Your task to perform on an android device: toggle show notifications on the lock screen Image 0: 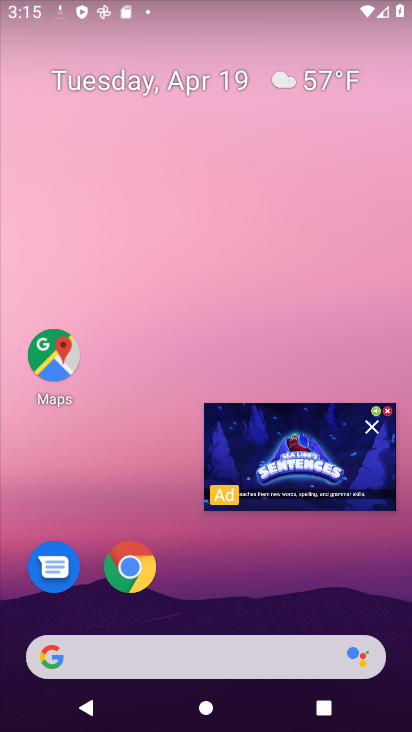
Step 0: press home button
Your task to perform on an android device: toggle show notifications on the lock screen Image 1: 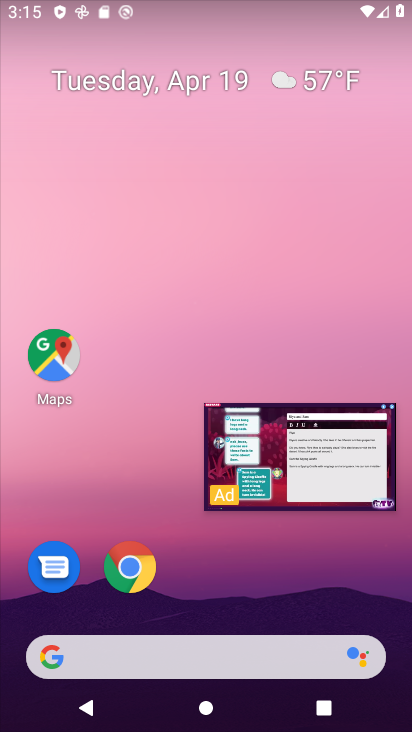
Step 1: click (380, 418)
Your task to perform on an android device: toggle show notifications on the lock screen Image 2: 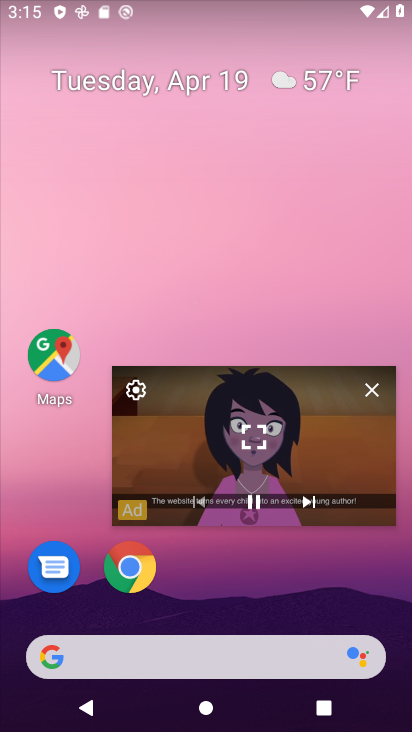
Step 2: click (372, 388)
Your task to perform on an android device: toggle show notifications on the lock screen Image 3: 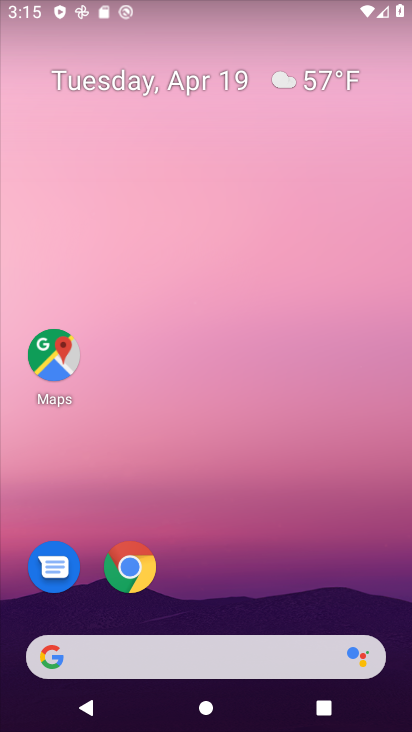
Step 3: drag from (261, 582) to (286, 63)
Your task to perform on an android device: toggle show notifications on the lock screen Image 4: 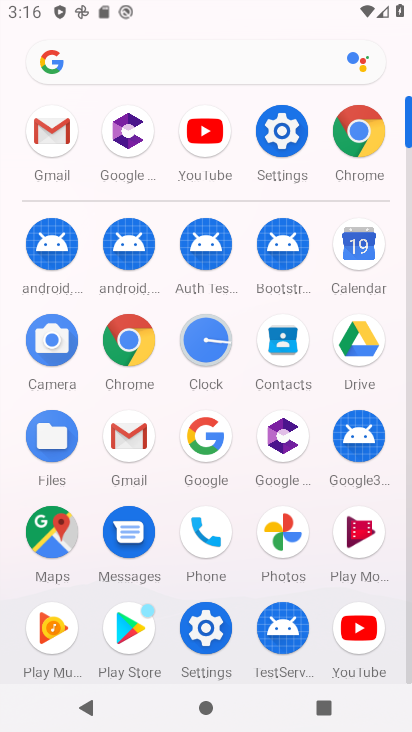
Step 4: click (289, 136)
Your task to perform on an android device: toggle show notifications on the lock screen Image 5: 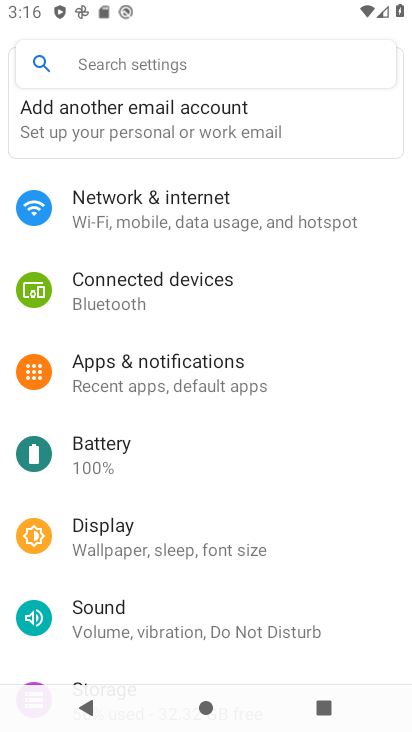
Step 5: drag from (362, 542) to (371, 398)
Your task to perform on an android device: toggle show notifications on the lock screen Image 6: 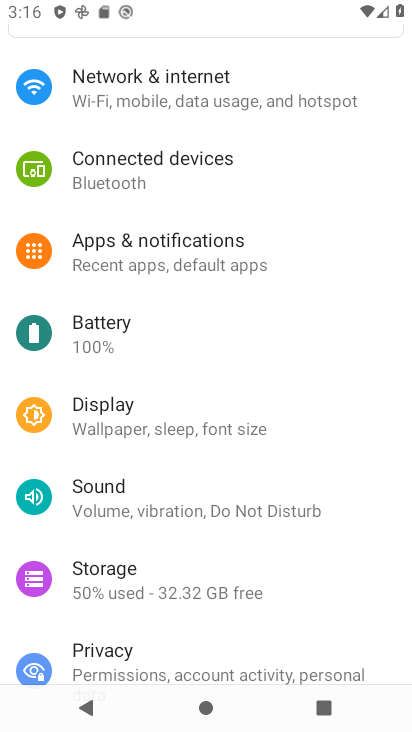
Step 6: drag from (341, 590) to (363, 365)
Your task to perform on an android device: toggle show notifications on the lock screen Image 7: 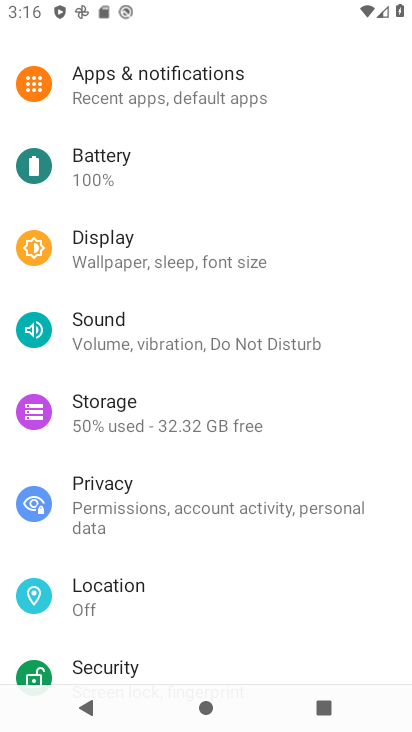
Step 7: drag from (369, 635) to (387, 378)
Your task to perform on an android device: toggle show notifications on the lock screen Image 8: 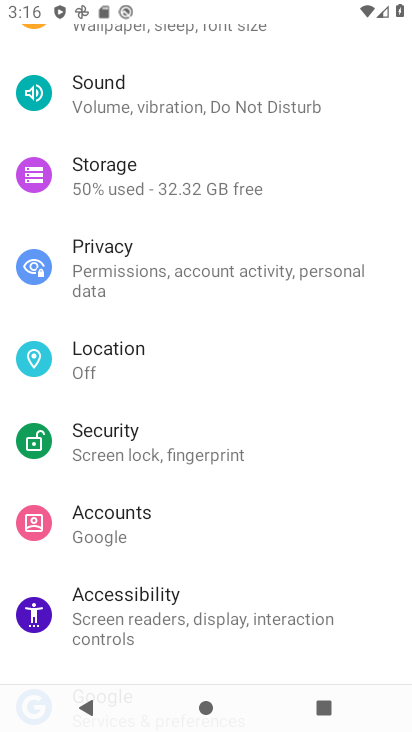
Step 8: drag from (355, 611) to (374, 324)
Your task to perform on an android device: toggle show notifications on the lock screen Image 9: 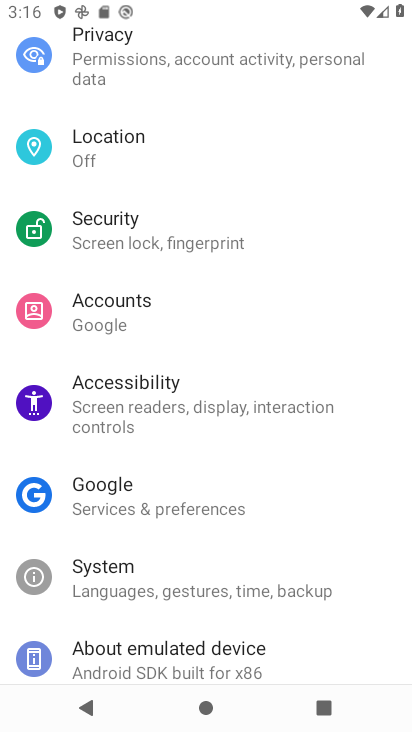
Step 9: drag from (335, 623) to (355, 333)
Your task to perform on an android device: toggle show notifications on the lock screen Image 10: 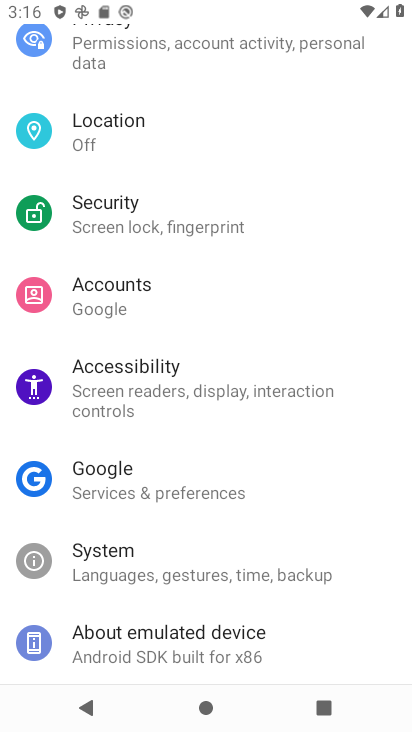
Step 10: drag from (361, 280) to (337, 504)
Your task to perform on an android device: toggle show notifications on the lock screen Image 11: 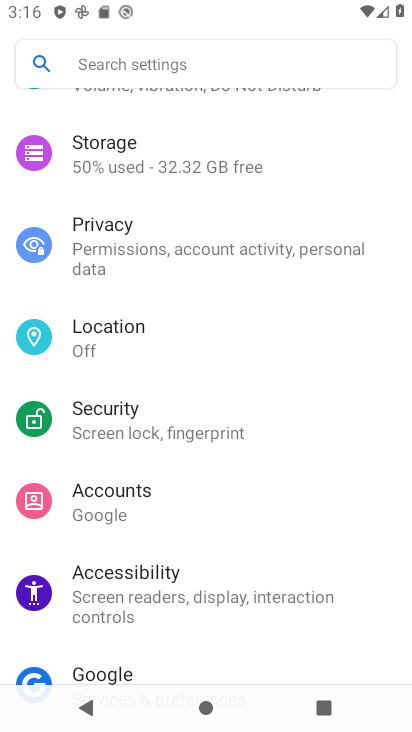
Step 11: drag from (383, 206) to (350, 491)
Your task to perform on an android device: toggle show notifications on the lock screen Image 12: 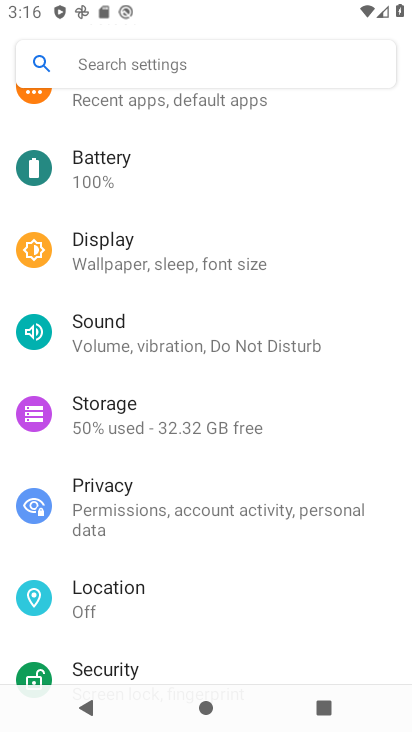
Step 12: drag from (368, 215) to (344, 452)
Your task to perform on an android device: toggle show notifications on the lock screen Image 13: 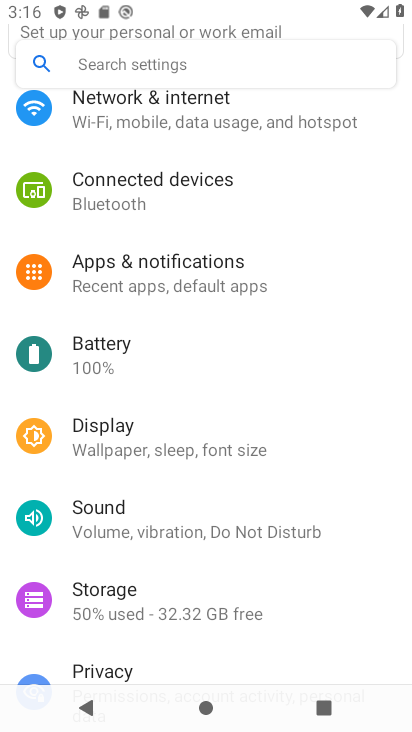
Step 13: click (122, 267)
Your task to perform on an android device: toggle show notifications on the lock screen Image 14: 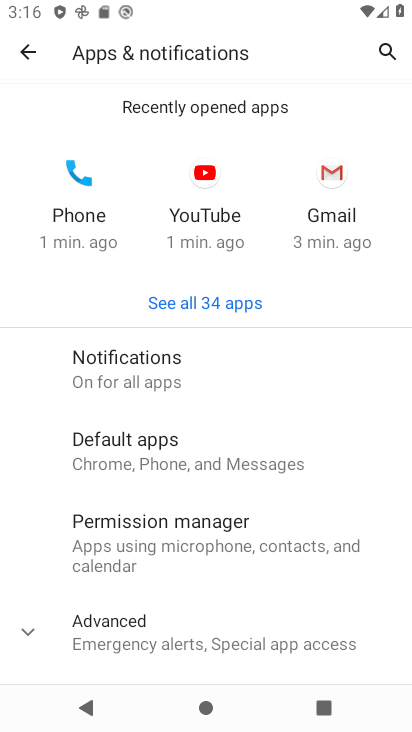
Step 14: click (141, 367)
Your task to perform on an android device: toggle show notifications on the lock screen Image 15: 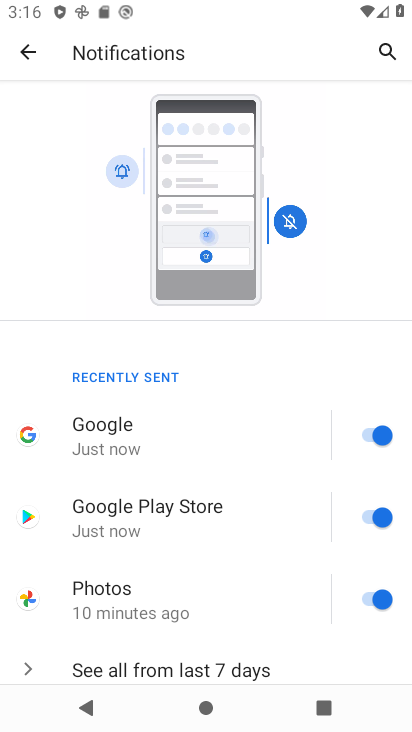
Step 15: drag from (286, 531) to (299, 272)
Your task to perform on an android device: toggle show notifications on the lock screen Image 16: 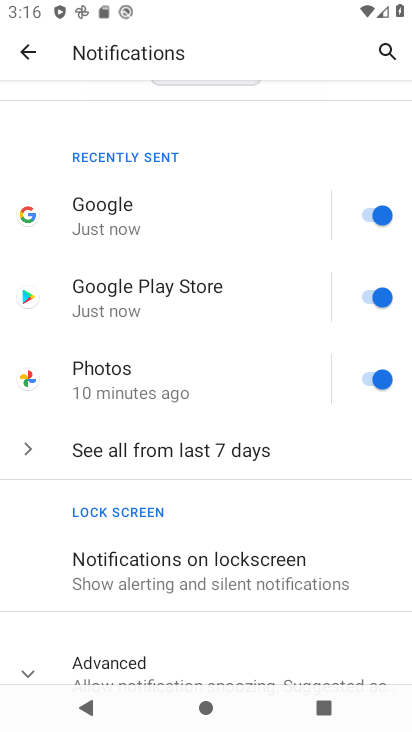
Step 16: drag from (283, 516) to (291, 252)
Your task to perform on an android device: toggle show notifications on the lock screen Image 17: 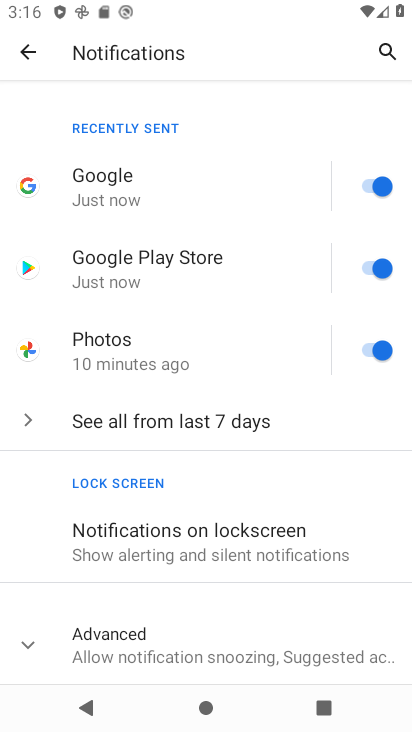
Step 17: click (251, 548)
Your task to perform on an android device: toggle show notifications on the lock screen Image 18: 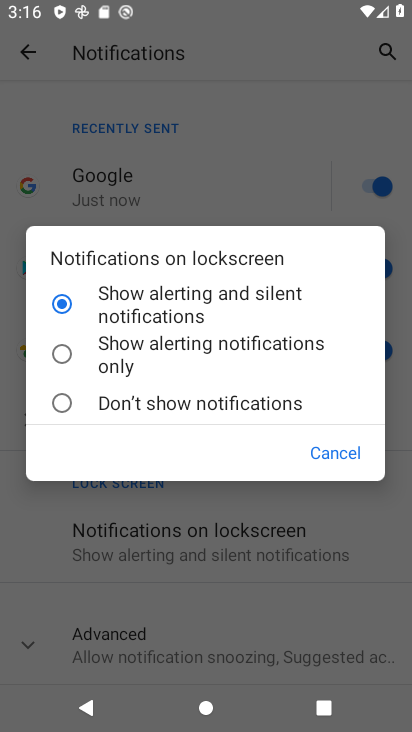
Step 18: task complete